Your task to perform on an android device: Open Google Maps and go to "Timeline" Image 0: 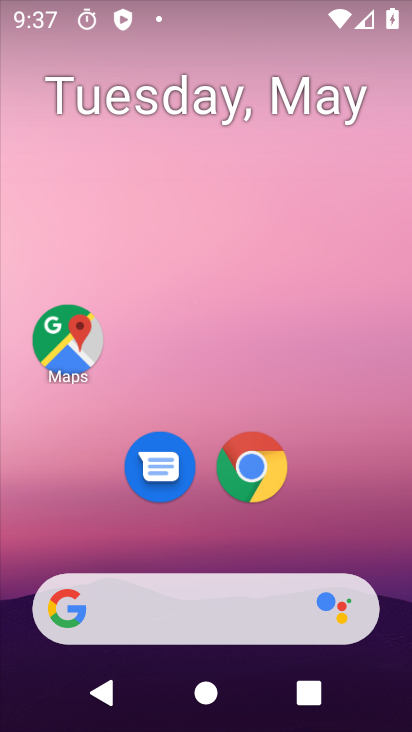
Step 0: drag from (312, 412) to (239, 14)
Your task to perform on an android device: Open Google Maps and go to "Timeline" Image 1: 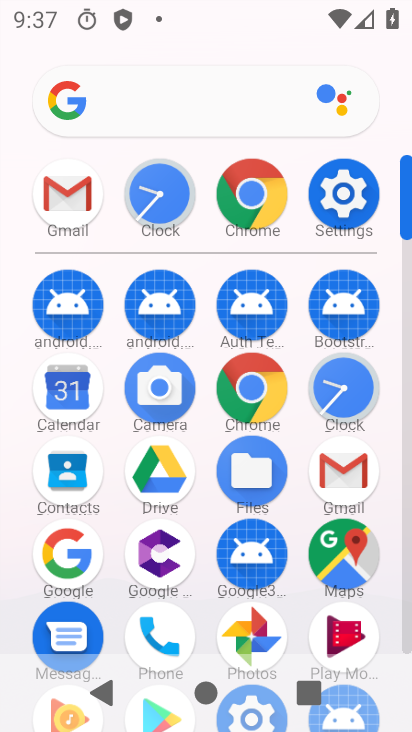
Step 1: drag from (10, 602) to (31, 259)
Your task to perform on an android device: Open Google Maps and go to "Timeline" Image 2: 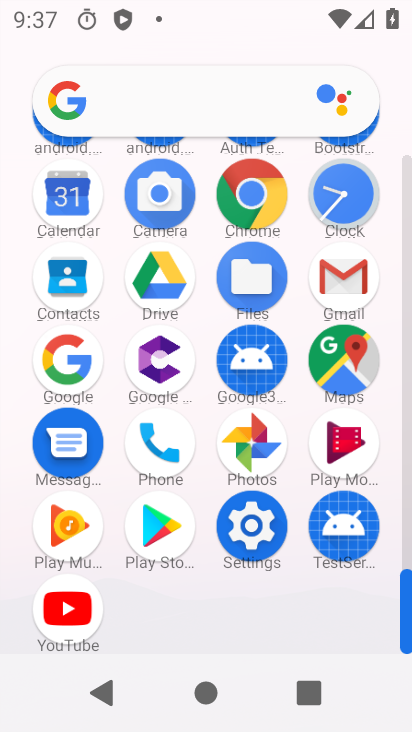
Step 2: click (344, 348)
Your task to perform on an android device: Open Google Maps and go to "Timeline" Image 3: 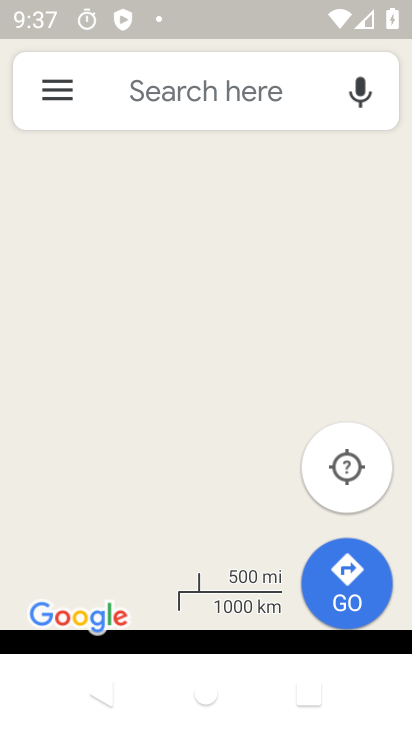
Step 3: click (68, 82)
Your task to perform on an android device: Open Google Maps and go to "Timeline" Image 4: 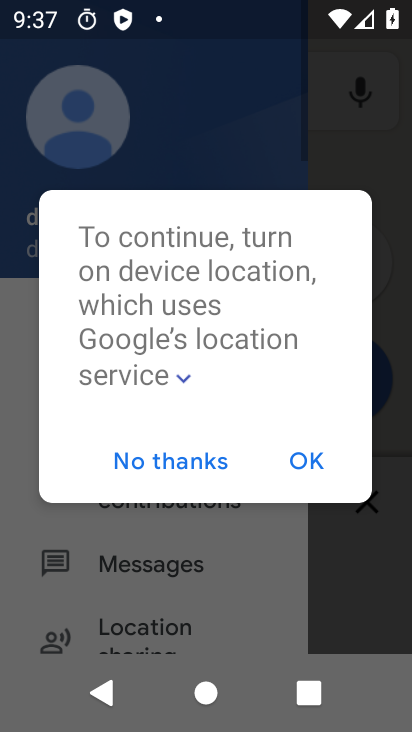
Step 4: click (297, 455)
Your task to perform on an android device: Open Google Maps and go to "Timeline" Image 5: 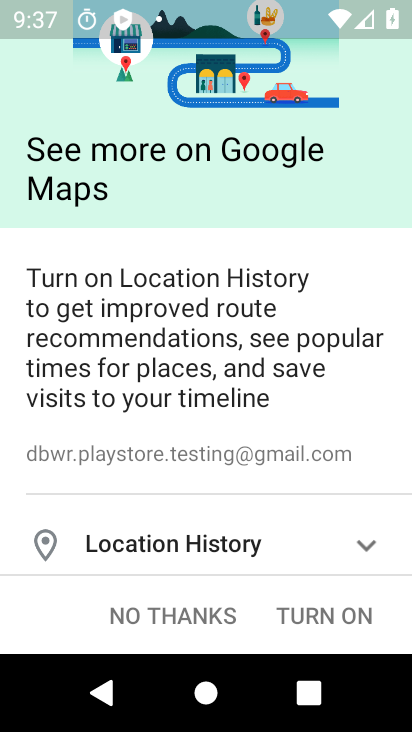
Step 5: click (319, 618)
Your task to perform on an android device: Open Google Maps and go to "Timeline" Image 6: 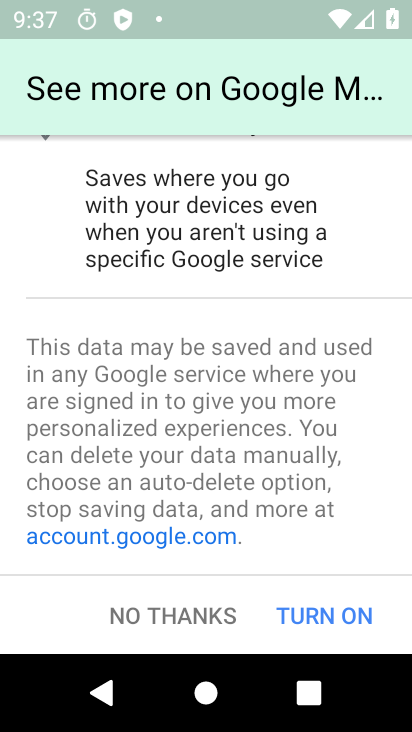
Step 6: click (319, 618)
Your task to perform on an android device: Open Google Maps and go to "Timeline" Image 7: 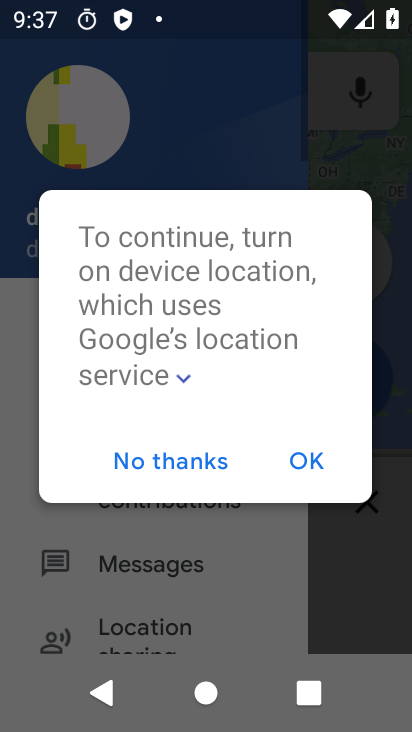
Step 7: click (304, 457)
Your task to perform on an android device: Open Google Maps and go to "Timeline" Image 8: 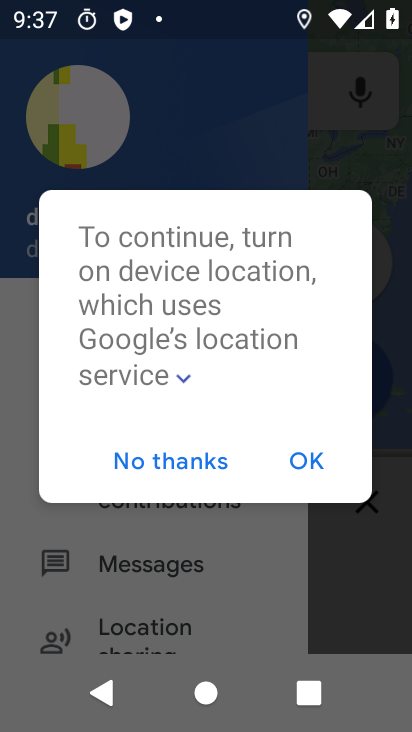
Step 8: click (305, 452)
Your task to perform on an android device: Open Google Maps and go to "Timeline" Image 9: 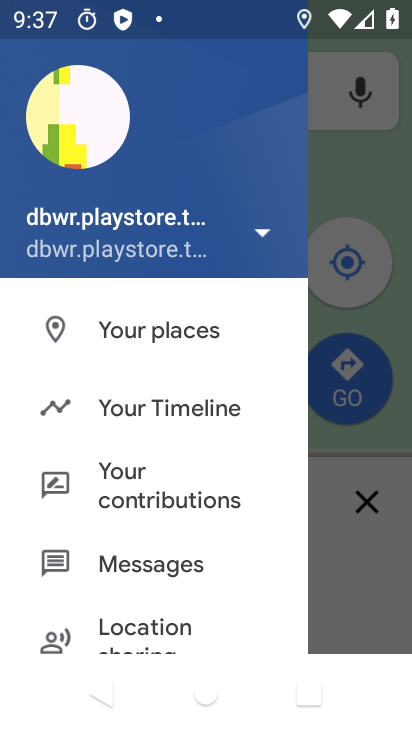
Step 9: click (171, 409)
Your task to perform on an android device: Open Google Maps and go to "Timeline" Image 10: 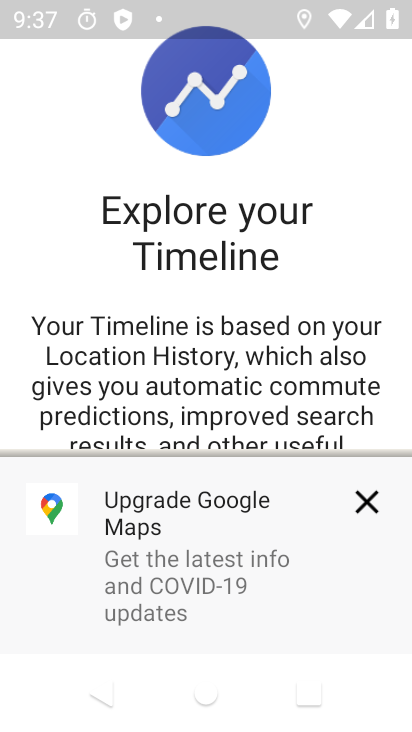
Step 10: click (373, 503)
Your task to perform on an android device: Open Google Maps and go to "Timeline" Image 11: 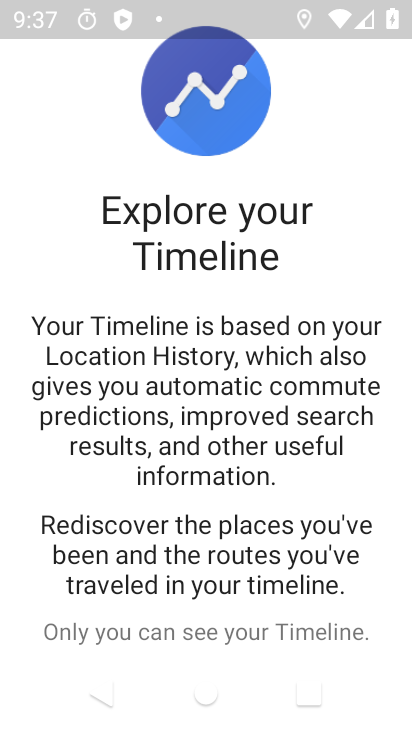
Step 11: drag from (317, 599) to (301, 251)
Your task to perform on an android device: Open Google Maps and go to "Timeline" Image 12: 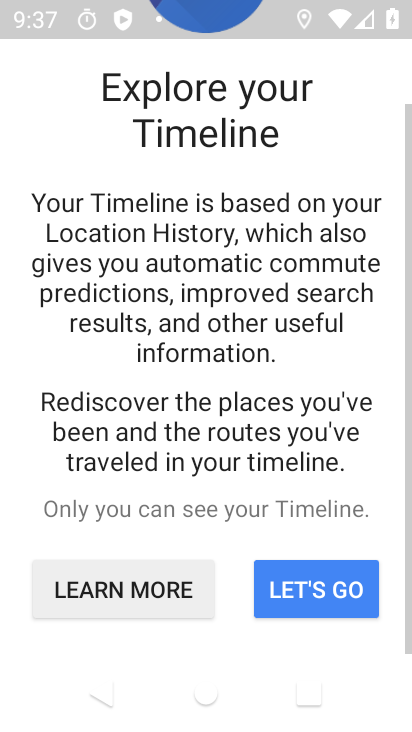
Step 12: click (301, 625)
Your task to perform on an android device: Open Google Maps and go to "Timeline" Image 13: 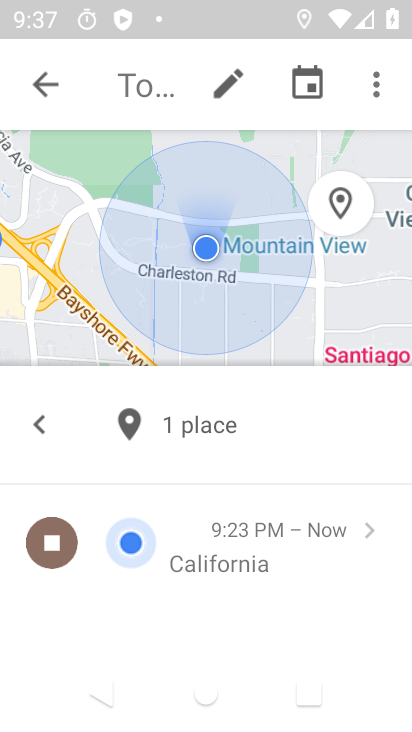
Step 13: task complete